Your task to perform on an android device: toggle improve location accuracy Image 0: 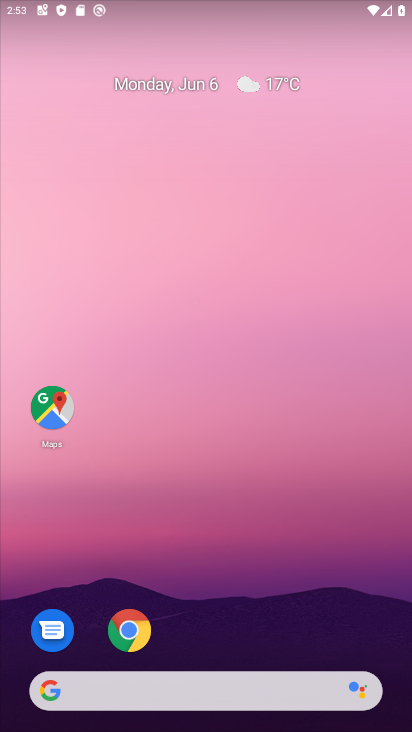
Step 0: drag from (226, 563) to (200, 86)
Your task to perform on an android device: toggle improve location accuracy Image 1: 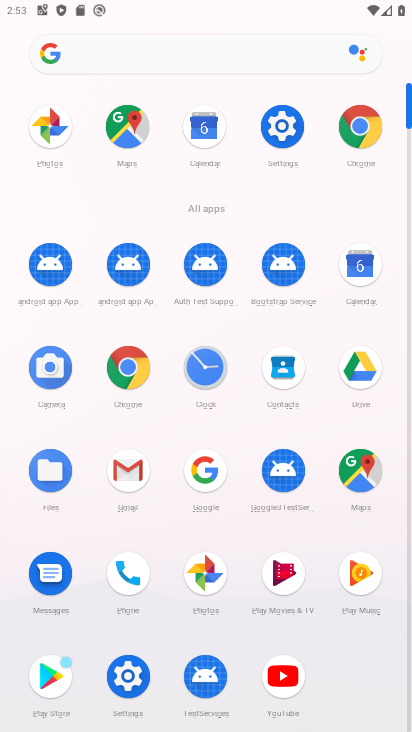
Step 1: click (292, 124)
Your task to perform on an android device: toggle improve location accuracy Image 2: 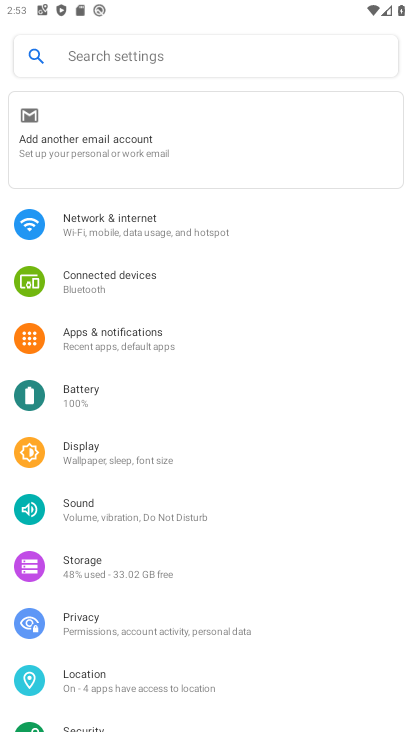
Step 2: click (109, 683)
Your task to perform on an android device: toggle improve location accuracy Image 3: 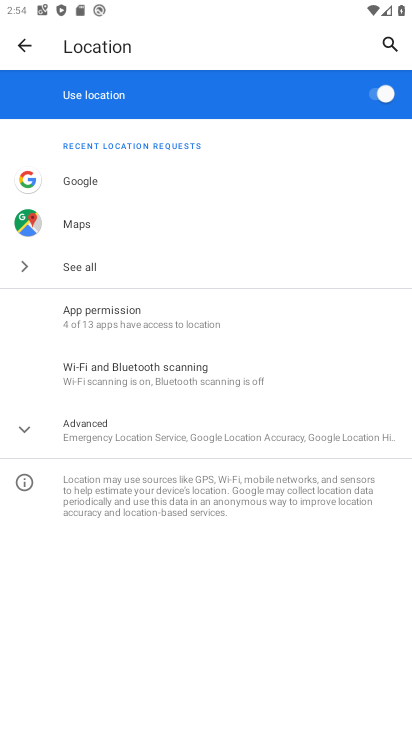
Step 3: click (138, 430)
Your task to perform on an android device: toggle improve location accuracy Image 4: 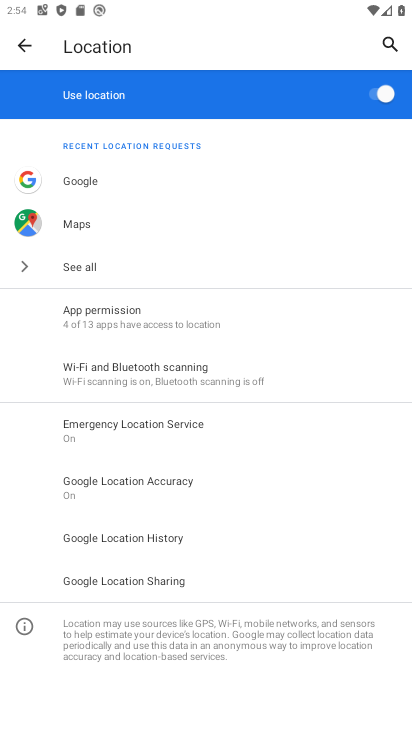
Step 4: click (151, 484)
Your task to perform on an android device: toggle improve location accuracy Image 5: 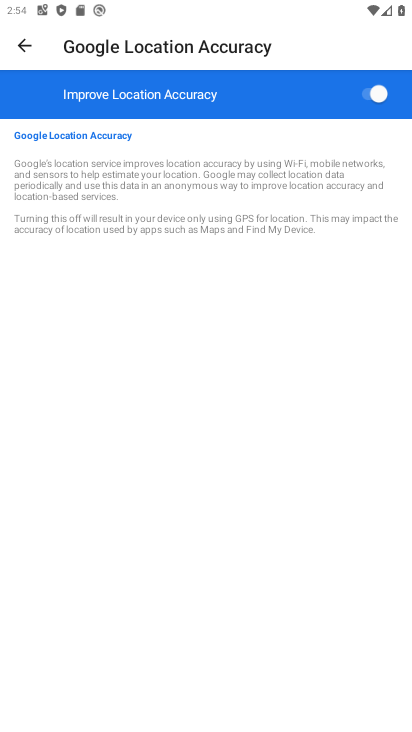
Step 5: click (369, 95)
Your task to perform on an android device: toggle improve location accuracy Image 6: 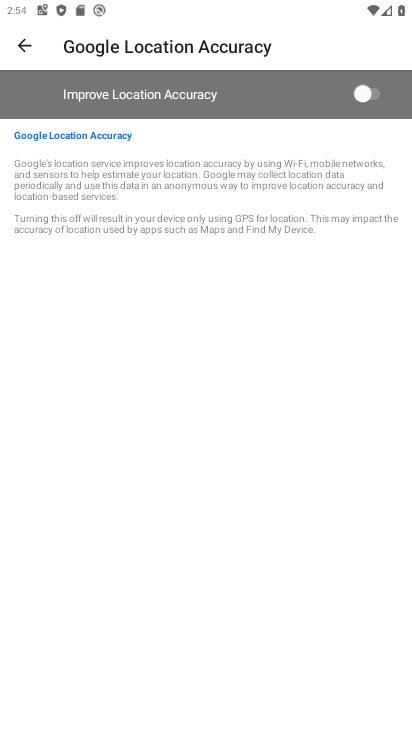
Step 6: task complete